Your task to perform on an android device: What is the recent news? Image 0: 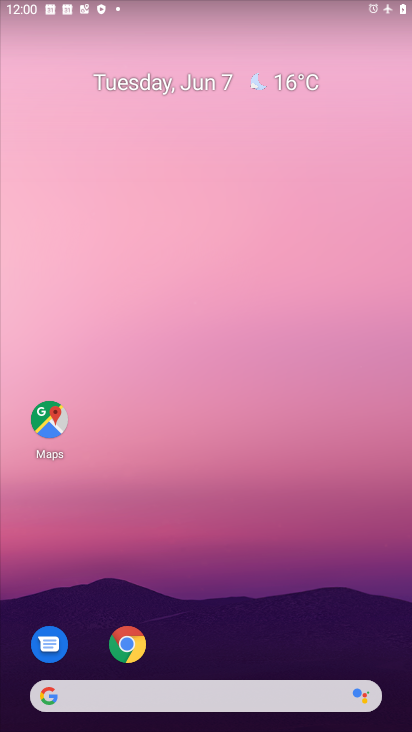
Step 0: click (242, 701)
Your task to perform on an android device: What is the recent news? Image 1: 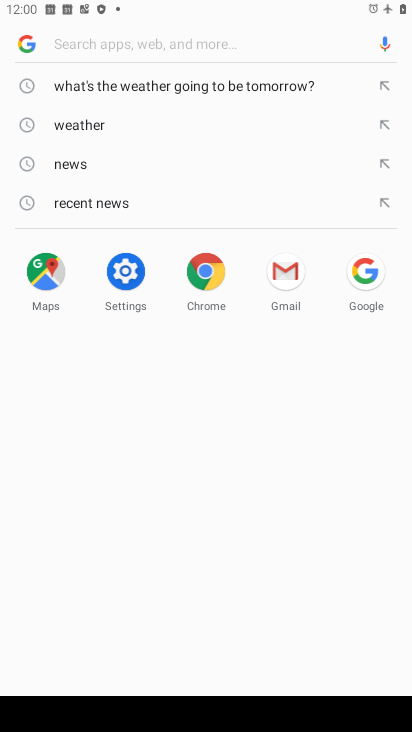
Step 1: click (62, 158)
Your task to perform on an android device: What is the recent news? Image 2: 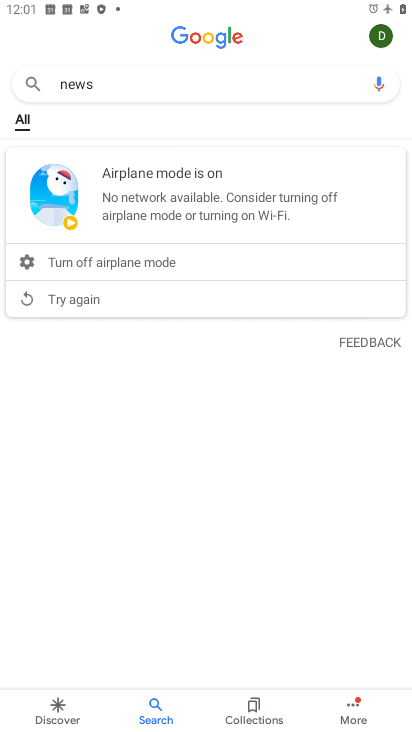
Step 2: drag from (268, 5) to (296, 534)
Your task to perform on an android device: What is the recent news? Image 3: 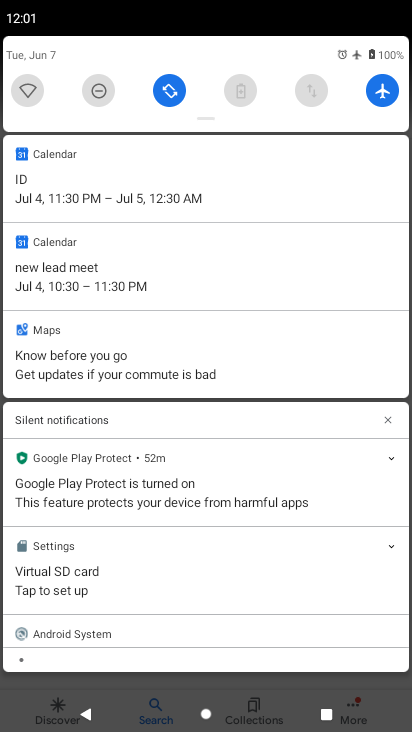
Step 3: click (381, 108)
Your task to perform on an android device: What is the recent news? Image 4: 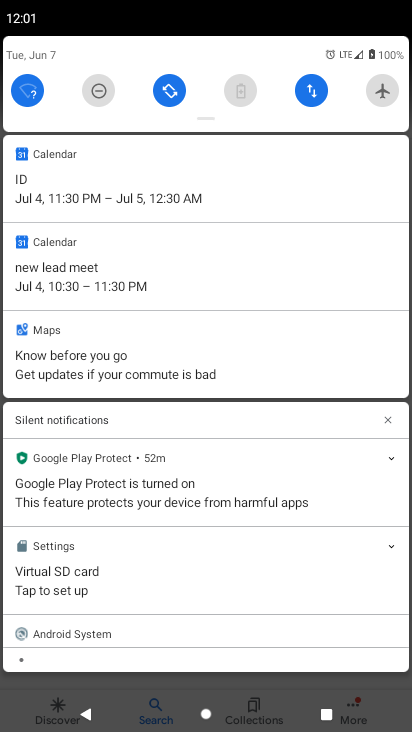
Step 4: task complete